Your task to perform on an android device: delete browsing data in the chrome app Image 0: 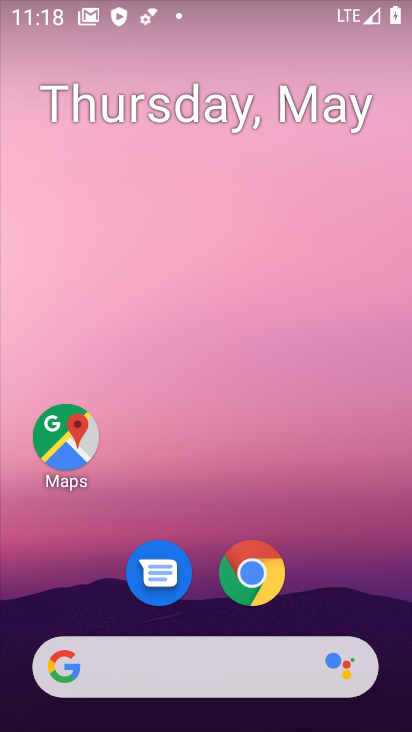
Step 0: click (253, 573)
Your task to perform on an android device: delete browsing data in the chrome app Image 1: 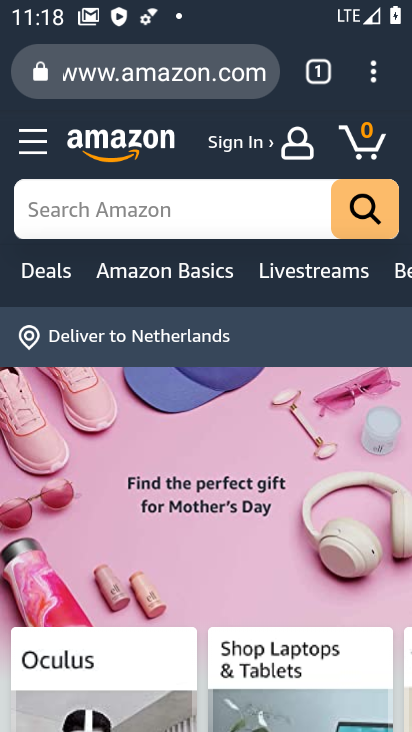
Step 1: click (388, 71)
Your task to perform on an android device: delete browsing data in the chrome app Image 2: 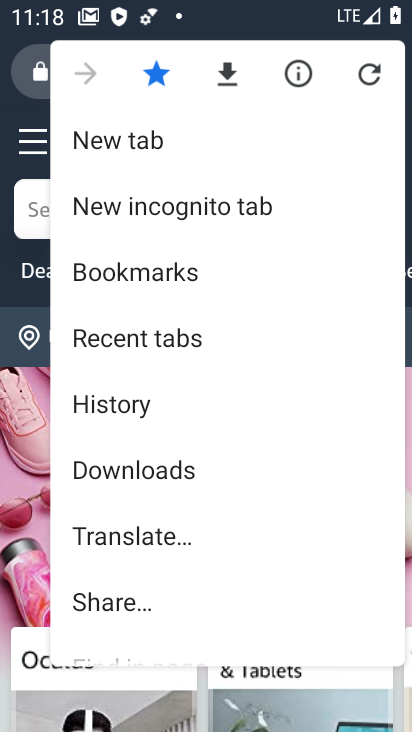
Step 2: drag from (173, 445) to (204, 328)
Your task to perform on an android device: delete browsing data in the chrome app Image 3: 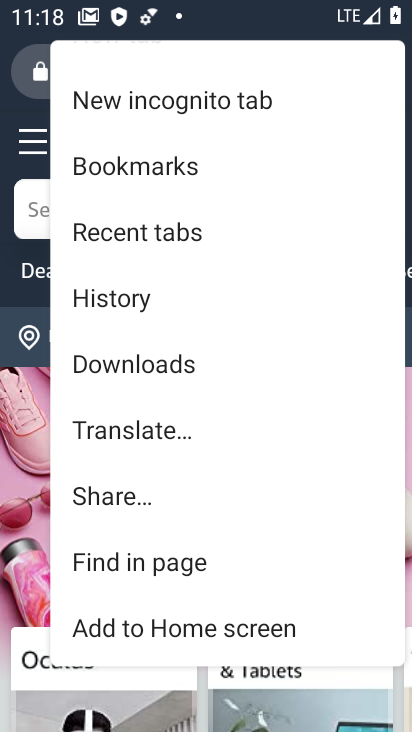
Step 3: drag from (158, 466) to (206, 352)
Your task to perform on an android device: delete browsing data in the chrome app Image 4: 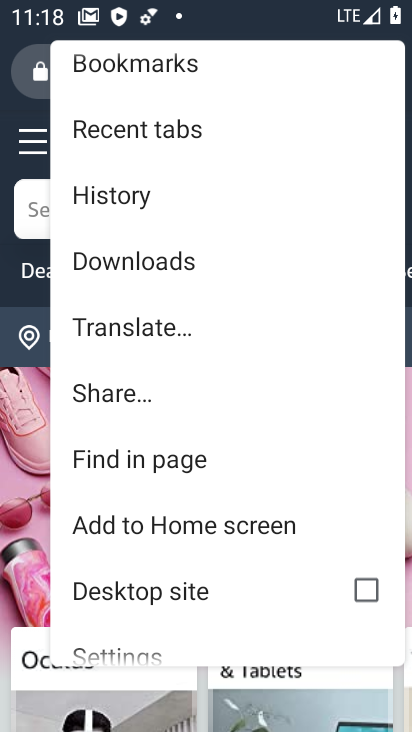
Step 4: drag from (151, 494) to (230, 376)
Your task to perform on an android device: delete browsing data in the chrome app Image 5: 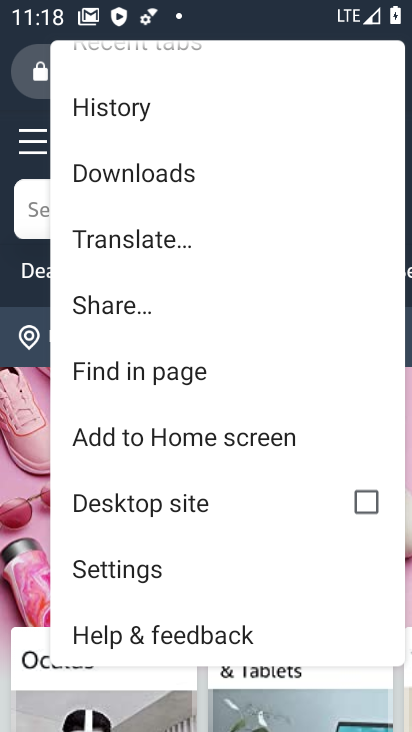
Step 5: click (150, 100)
Your task to perform on an android device: delete browsing data in the chrome app Image 6: 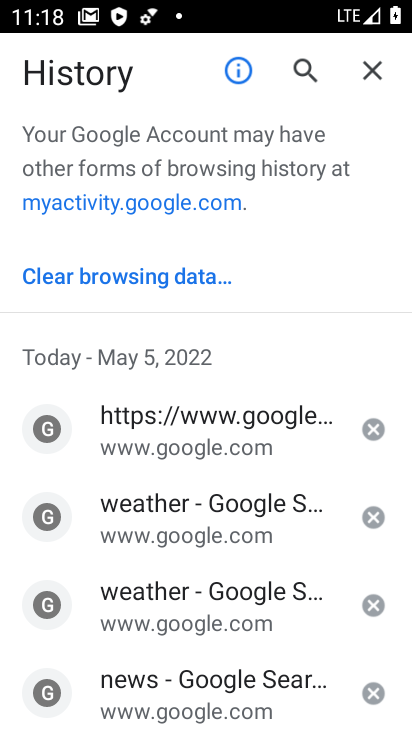
Step 6: click (163, 280)
Your task to perform on an android device: delete browsing data in the chrome app Image 7: 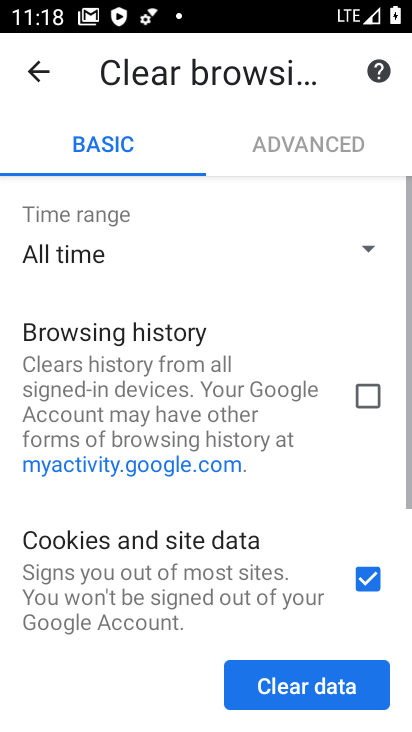
Step 7: click (365, 384)
Your task to perform on an android device: delete browsing data in the chrome app Image 8: 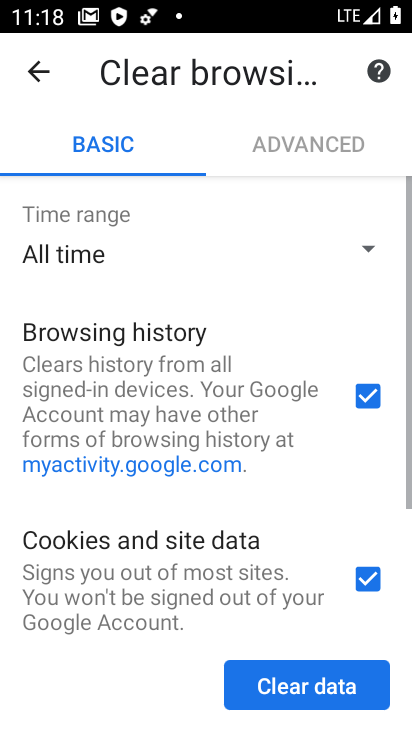
Step 8: click (305, 677)
Your task to perform on an android device: delete browsing data in the chrome app Image 9: 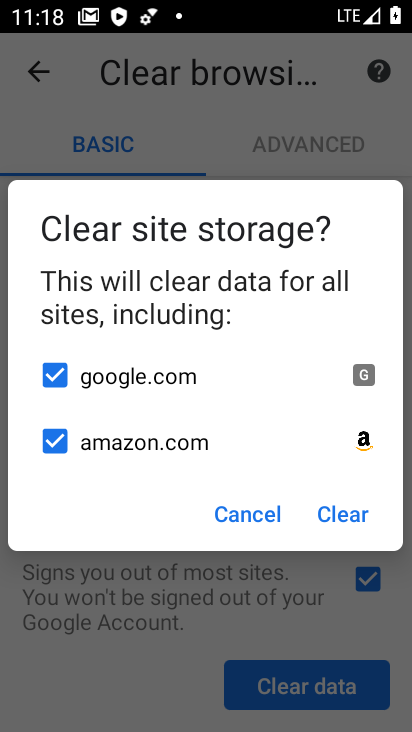
Step 9: click (344, 512)
Your task to perform on an android device: delete browsing data in the chrome app Image 10: 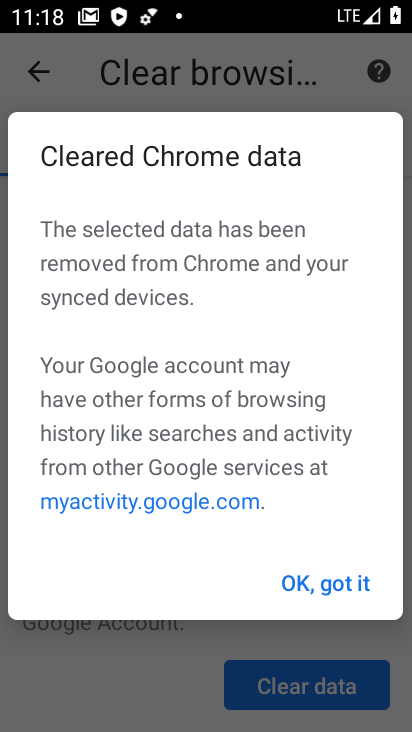
Step 10: click (336, 587)
Your task to perform on an android device: delete browsing data in the chrome app Image 11: 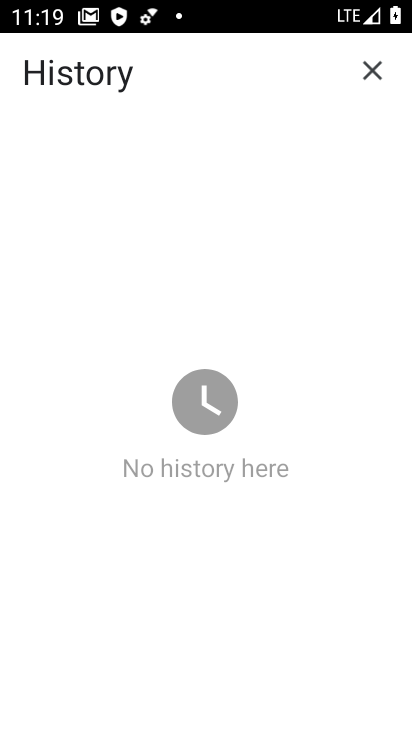
Step 11: task complete